Your task to perform on an android device: toggle translation in the chrome app Image 0: 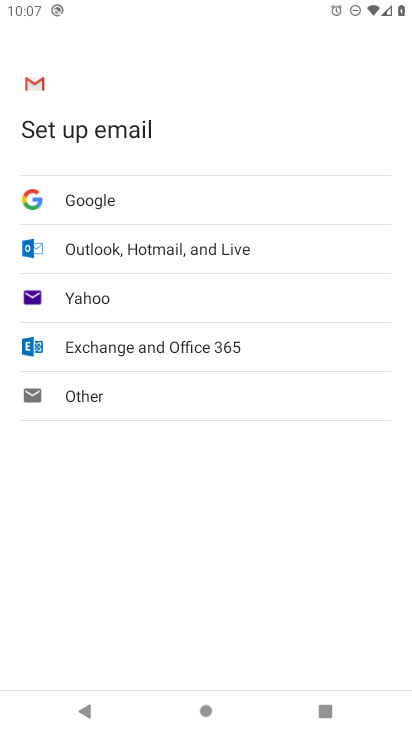
Step 0: press home button
Your task to perform on an android device: toggle translation in the chrome app Image 1: 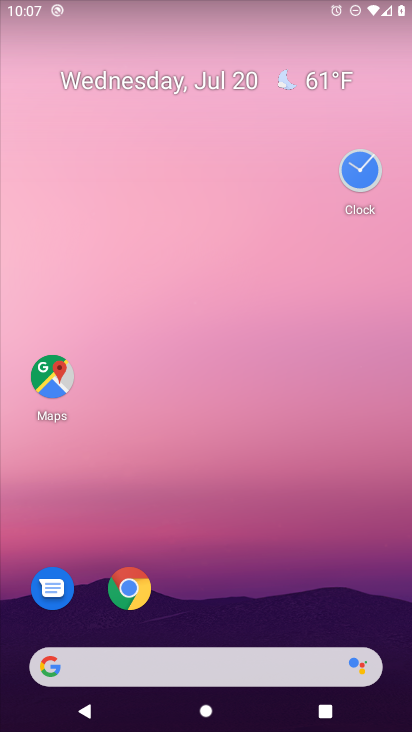
Step 1: drag from (10, 693) to (209, 186)
Your task to perform on an android device: toggle translation in the chrome app Image 2: 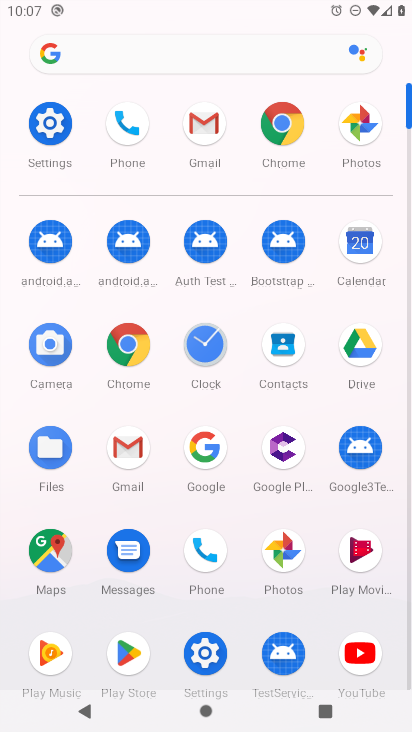
Step 2: click (140, 367)
Your task to perform on an android device: toggle translation in the chrome app Image 3: 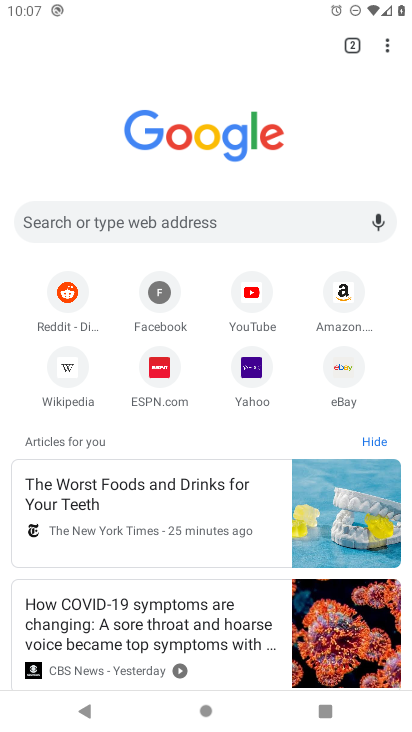
Step 3: click (392, 50)
Your task to perform on an android device: toggle translation in the chrome app Image 4: 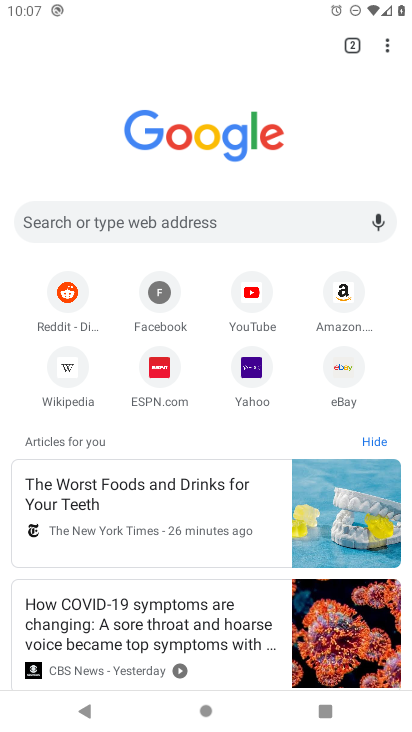
Step 4: click (393, 47)
Your task to perform on an android device: toggle translation in the chrome app Image 5: 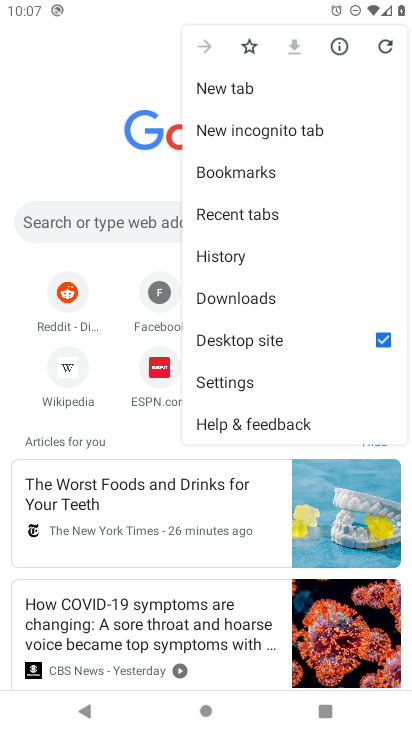
Step 5: click (225, 380)
Your task to perform on an android device: toggle translation in the chrome app Image 6: 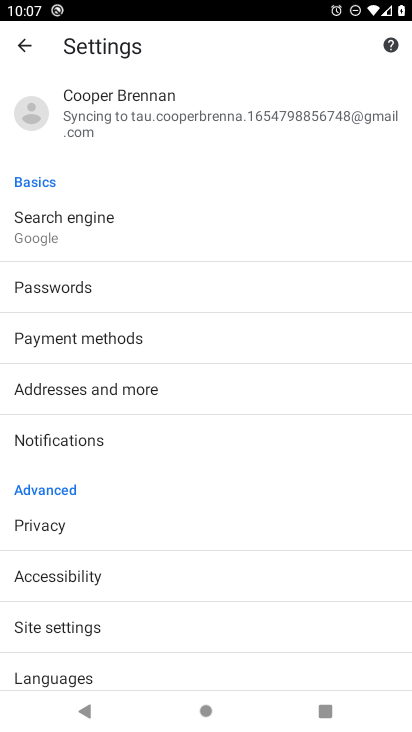
Step 6: drag from (177, 615) to (195, 305)
Your task to perform on an android device: toggle translation in the chrome app Image 7: 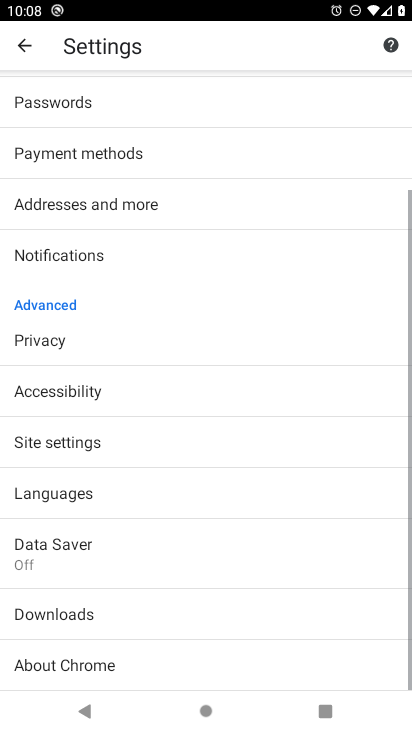
Step 7: click (40, 485)
Your task to perform on an android device: toggle translation in the chrome app Image 8: 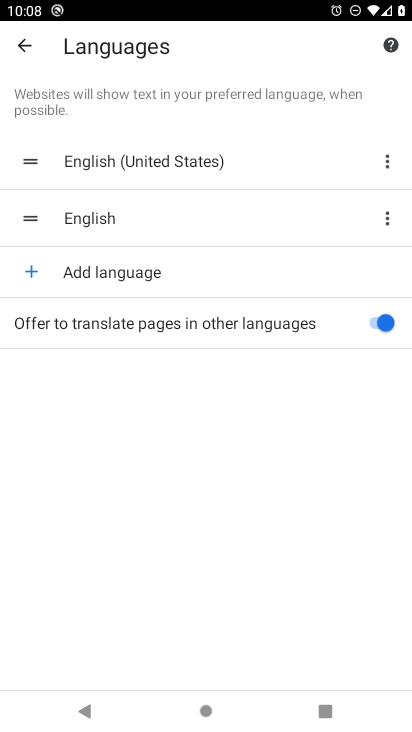
Step 8: task complete